Your task to perform on an android device: Turn off the flashlight Image 0: 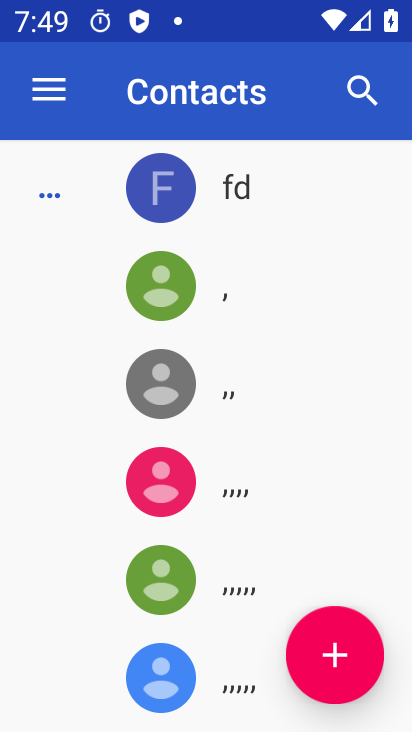
Step 0: press home button
Your task to perform on an android device: Turn off the flashlight Image 1: 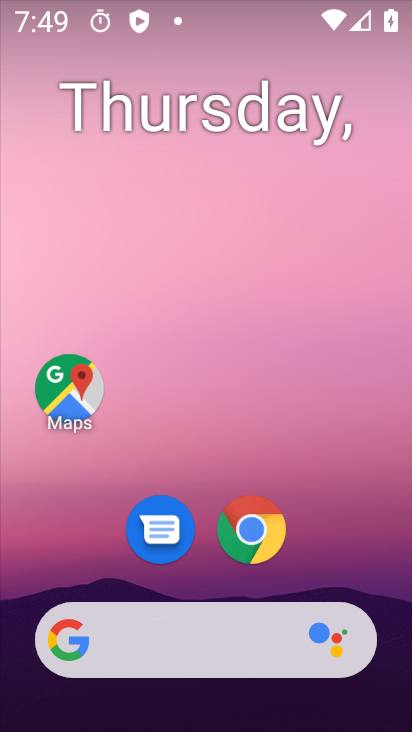
Step 1: drag from (385, 679) to (327, 139)
Your task to perform on an android device: Turn off the flashlight Image 2: 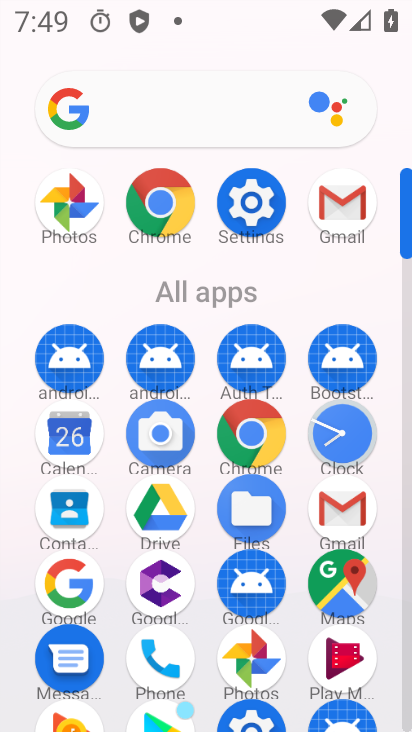
Step 2: click (250, 207)
Your task to perform on an android device: Turn off the flashlight Image 3: 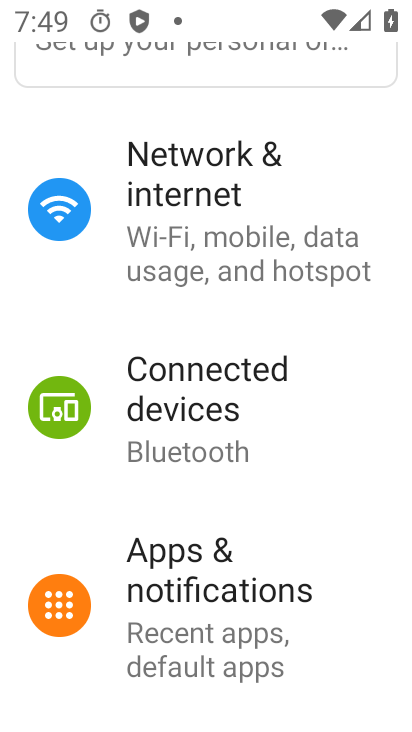
Step 3: drag from (324, 633) to (337, 245)
Your task to perform on an android device: Turn off the flashlight Image 4: 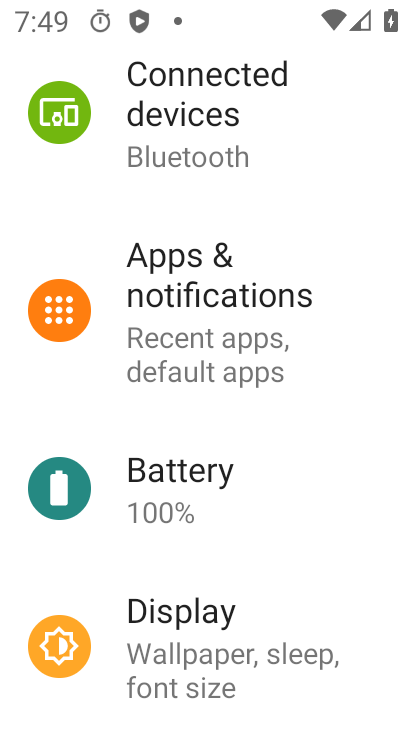
Step 4: click (160, 616)
Your task to perform on an android device: Turn off the flashlight Image 5: 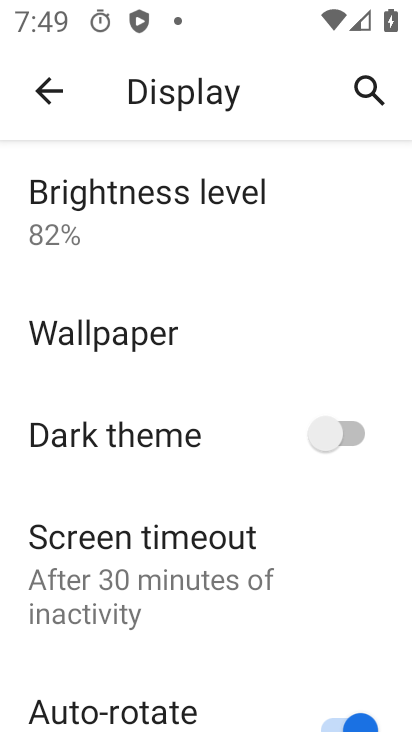
Step 5: task complete